Your task to perform on an android device: Open CNN.com Image 0: 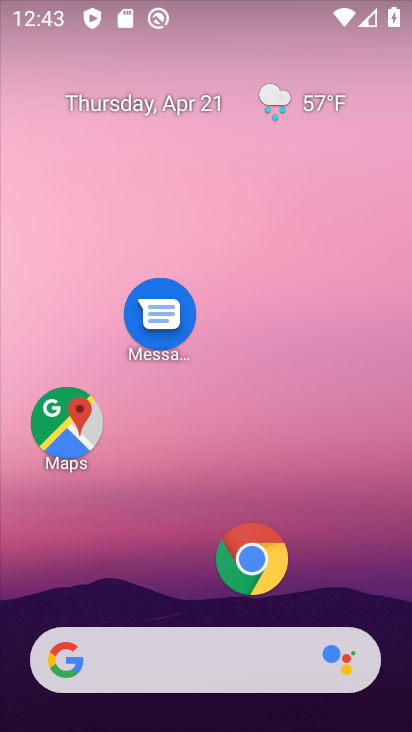
Step 0: click (250, 552)
Your task to perform on an android device: Open CNN.com Image 1: 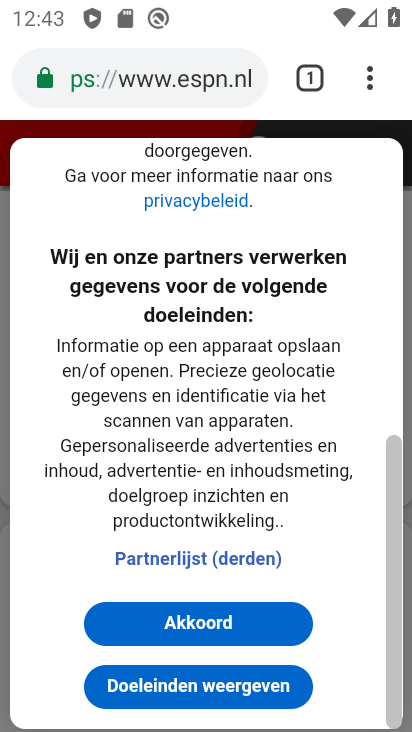
Step 1: click (312, 78)
Your task to perform on an android device: Open CNN.com Image 2: 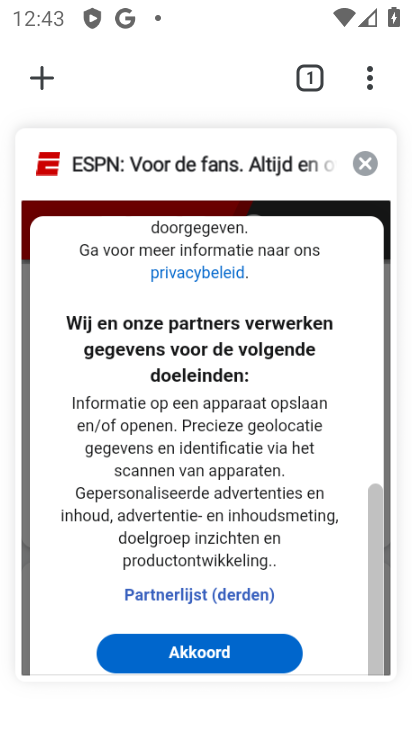
Step 2: click (356, 160)
Your task to perform on an android device: Open CNN.com Image 3: 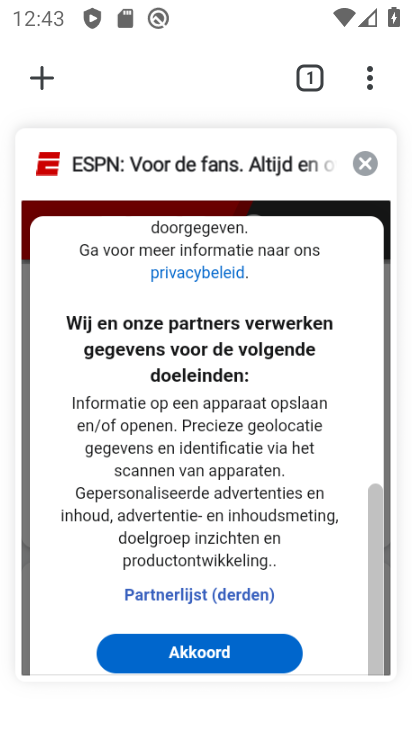
Step 3: click (37, 76)
Your task to perform on an android device: Open CNN.com Image 4: 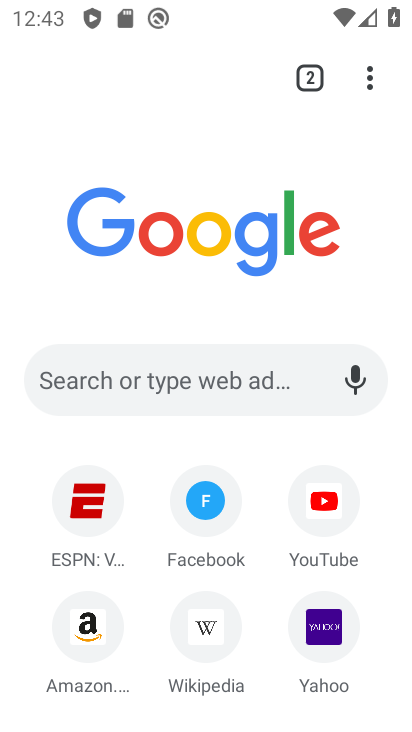
Step 4: click (149, 382)
Your task to perform on an android device: Open CNN.com Image 5: 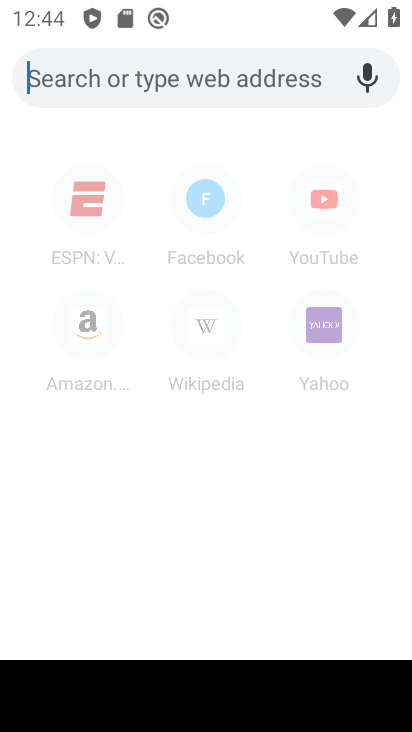
Step 5: type "cnn.com"
Your task to perform on an android device: Open CNN.com Image 6: 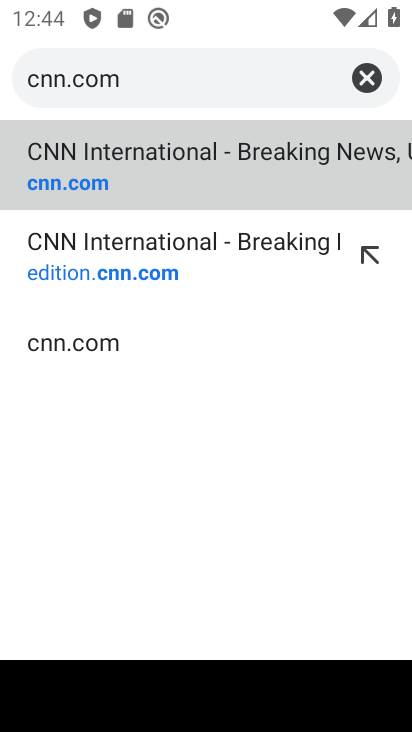
Step 6: click (82, 145)
Your task to perform on an android device: Open CNN.com Image 7: 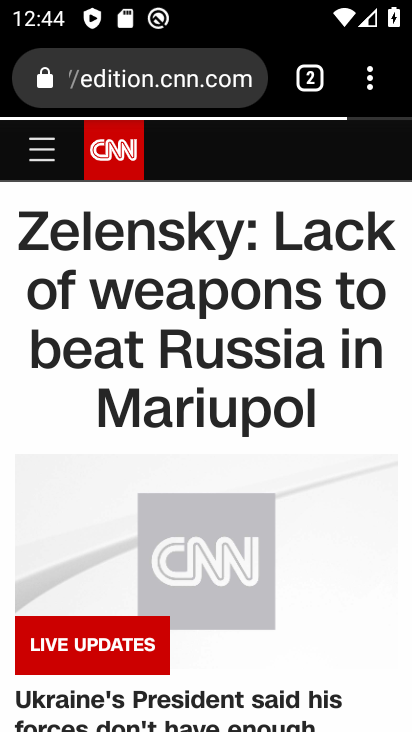
Step 7: task complete